Your task to perform on an android device: change the clock display to analog Image 0: 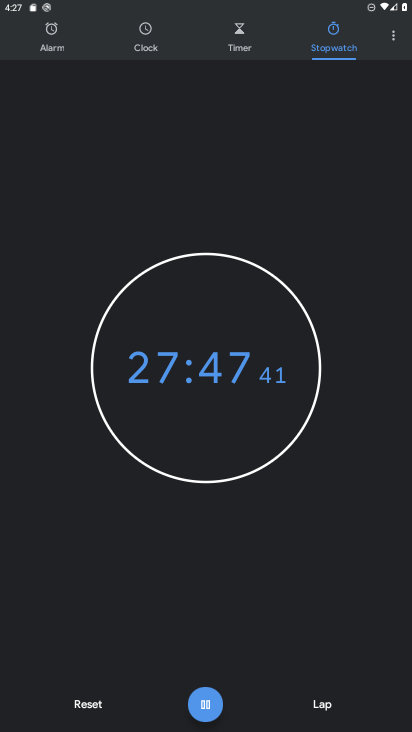
Step 0: click (393, 31)
Your task to perform on an android device: change the clock display to analog Image 1: 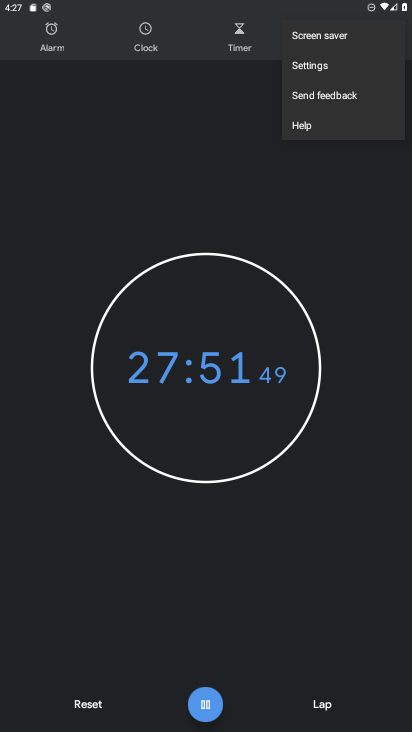
Step 1: click (328, 70)
Your task to perform on an android device: change the clock display to analog Image 2: 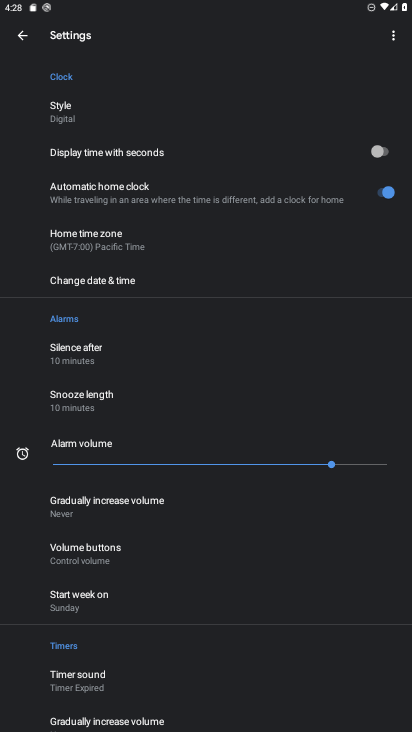
Step 2: click (72, 116)
Your task to perform on an android device: change the clock display to analog Image 3: 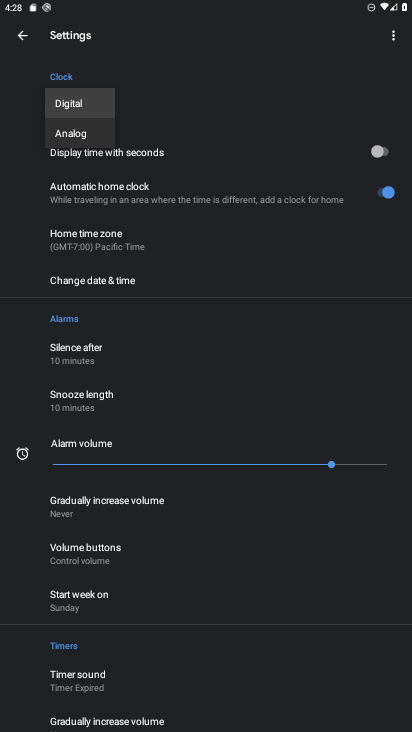
Step 3: click (78, 137)
Your task to perform on an android device: change the clock display to analog Image 4: 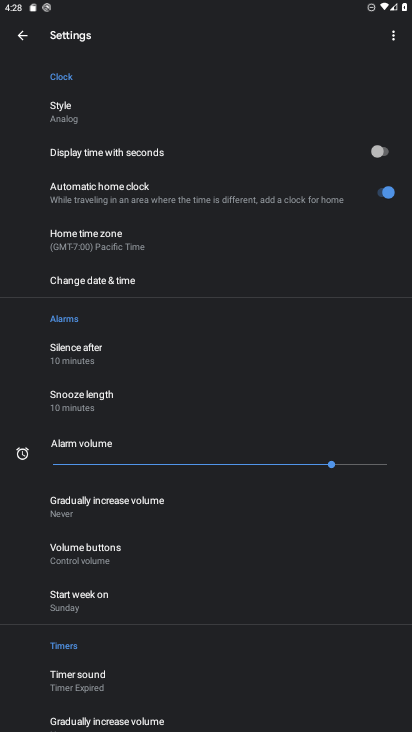
Step 4: task complete